Your task to perform on an android device: see sites visited before in the chrome app Image 0: 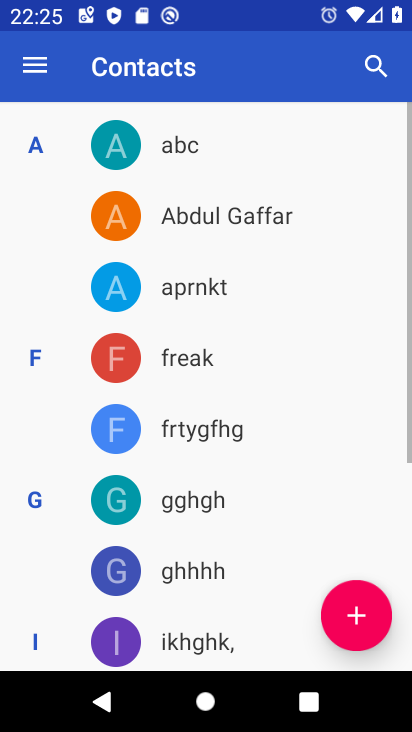
Step 0: press home button
Your task to perform on an android device: see sites visited before in the chrome app Image 1: 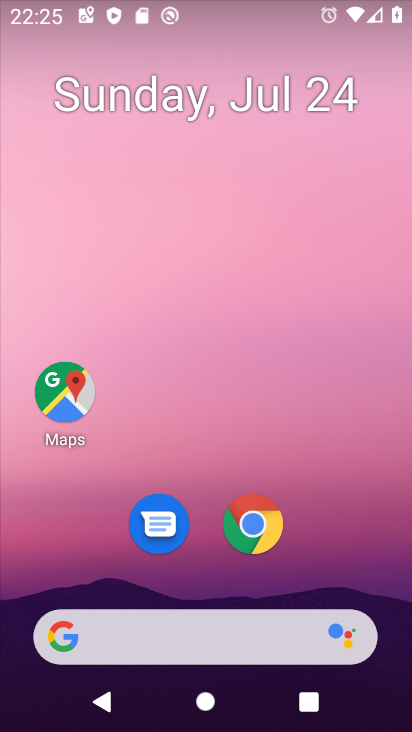
Step 1: click (254, 537)
Your task to perform on an android device: see sites visited before in the chrome app Image 2: 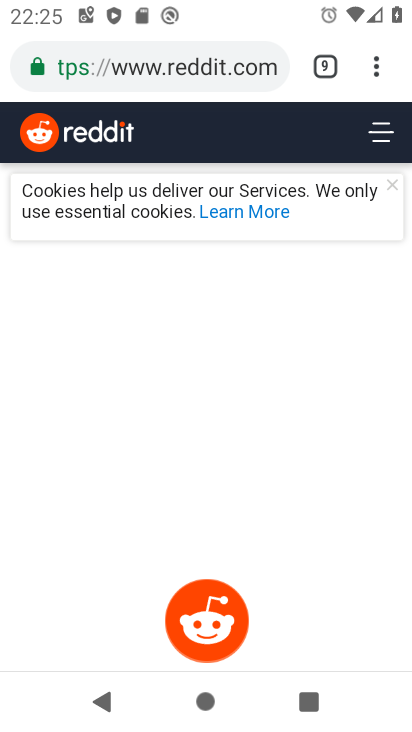
Step 2: task complete